Your task to perform on an android device: Show me recent news Image 0: 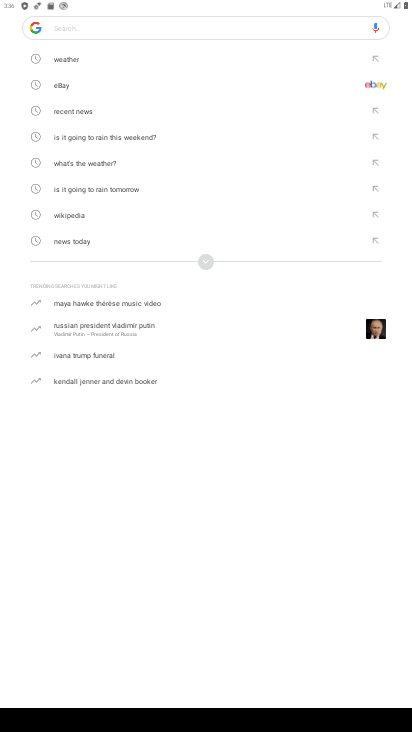
Step 0: task complete